Your task to perform on an android device: open the mobile data screen to see how much data has been used Image 0: 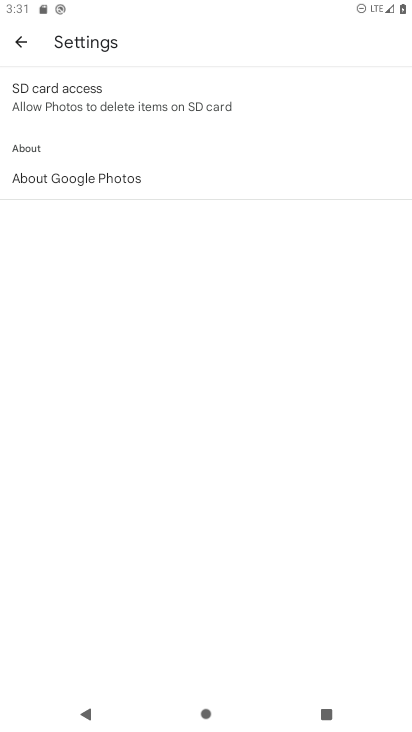
Step 0: press home button
Your task to perform on an android device: open the mobile data screen to see how much data has been used Image 1: 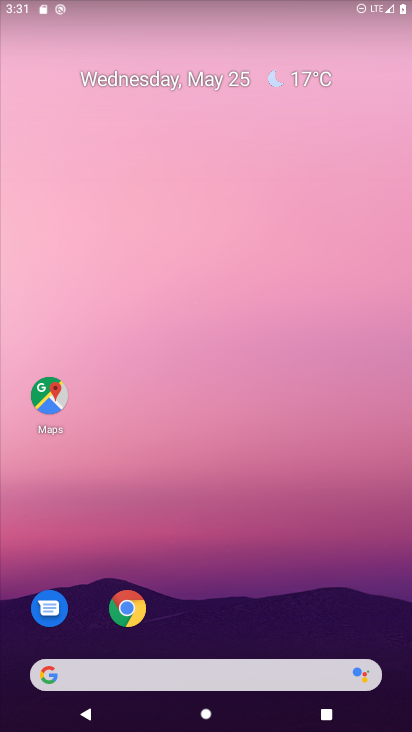
Step 1: drag from (379, 626) to (273, 162)
Your task to perform on an android device: open the mobile data screen to see how much data has been used Image 2: 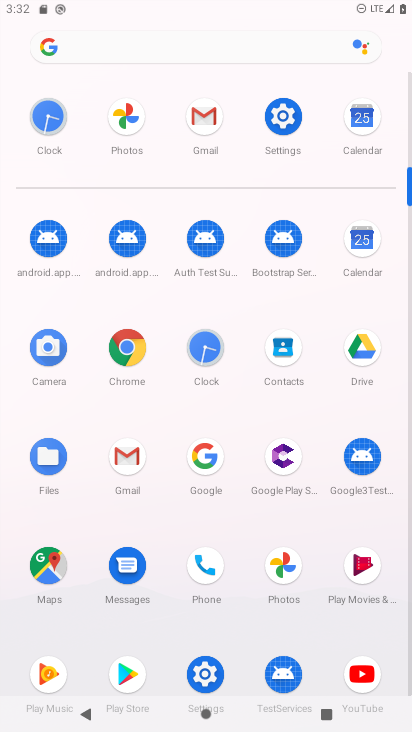
Step 2: click (204, 672)
Your task to perform on an android device: open the mobile data screen to see how much data has been used Image 3: 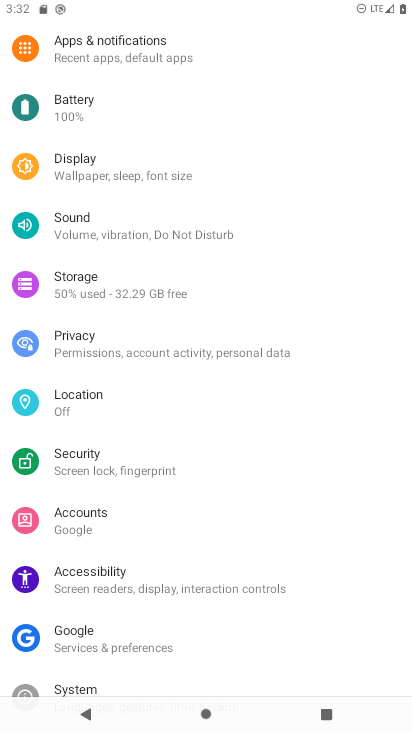
Step 3: drag from (294, 110) to (313, 420)
Your task to perform on an android device: open the mobile data screen to see how much data has been used Image 4: 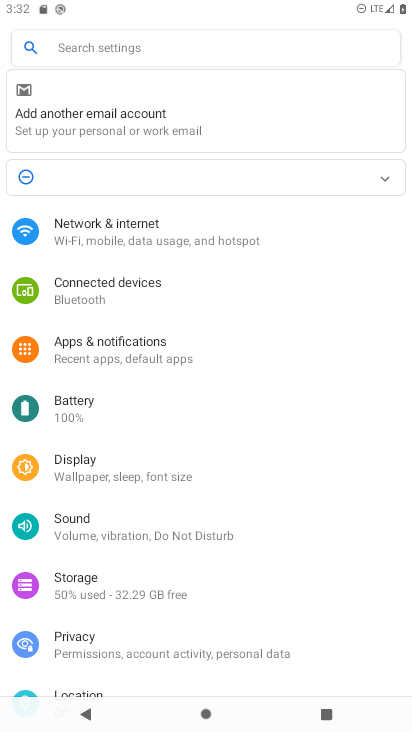
Step 4: click (91, 225)
Your task to perform on an android device: open the mobile data screen to see how much data has been used Image 5: 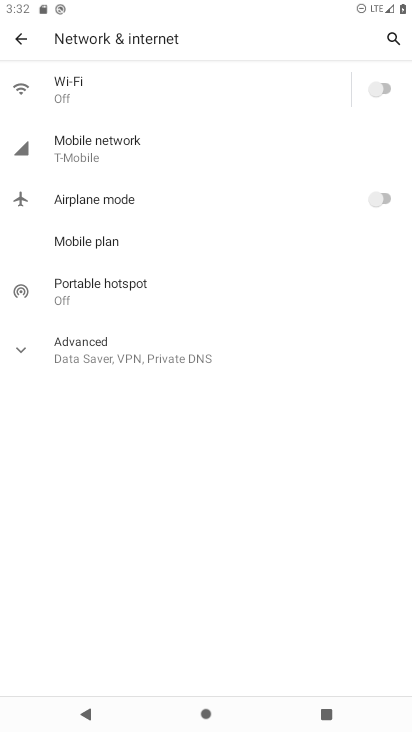
Step 5: click (70, 146)
Your task to perform on an android device: open the mobile data screen to see how much data has been used Image 6: 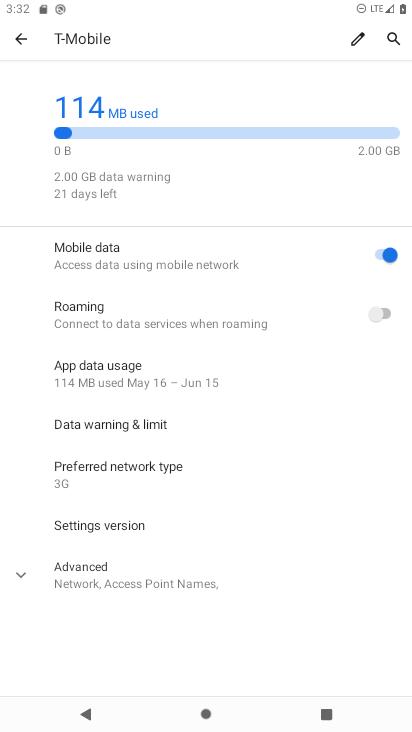
Step 6: task complete